Your task to perform on an android device: check storage Image 0: 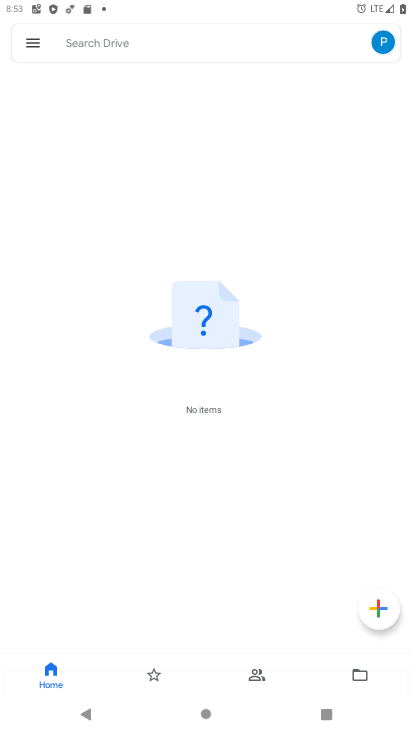
Step 0: press home button
Your task to perform on an android device: check storage Image 1: 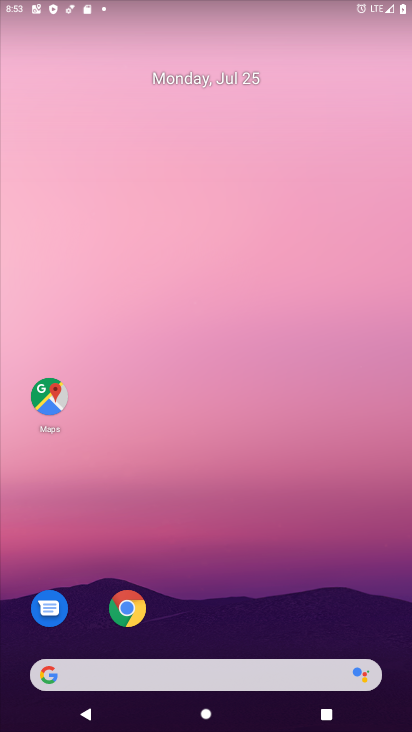
Step 1: drag from (242, 710) to (239, 159)
Your task to perform on an android device: check storage Image 2: 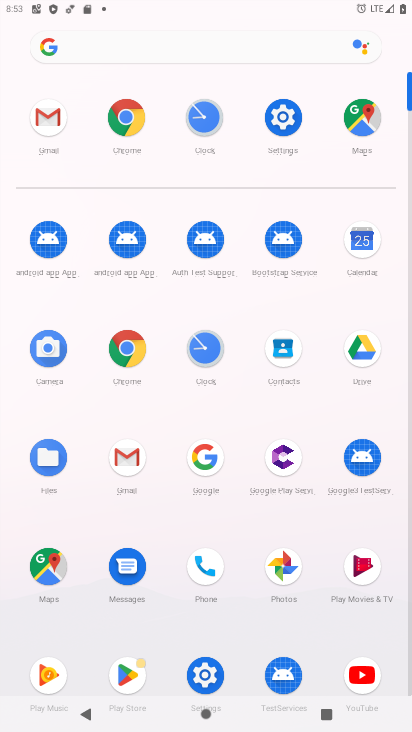
Step 2: click (278, 113)
Your task to perform on an android device: check storage Image 3: 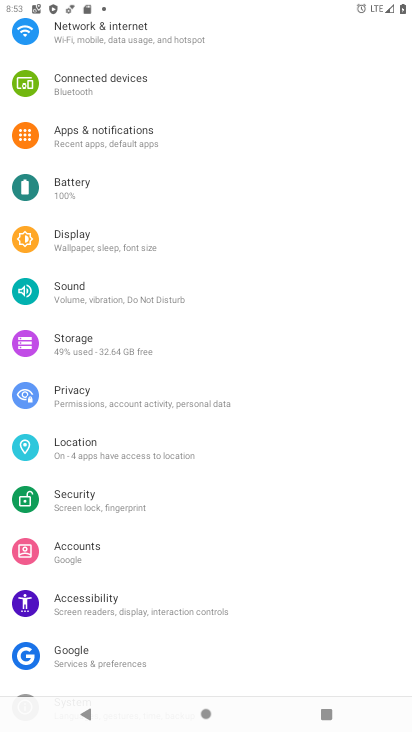
Step 3: click (69, 340)
Your task to perform on an android device: check storage Image 4: 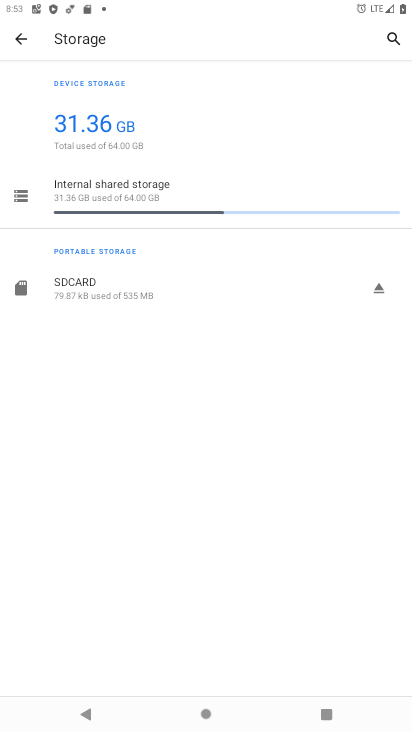
Step 4: task complete